Your task to perform on an android device: allow cookies in the chrome app Image 0: 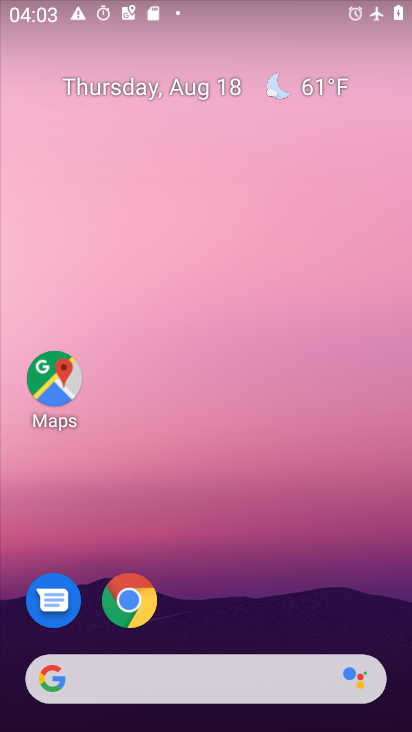
Step 0: press home button
Your task to perform on an android device: allow cookies in the chrome app Image 1: 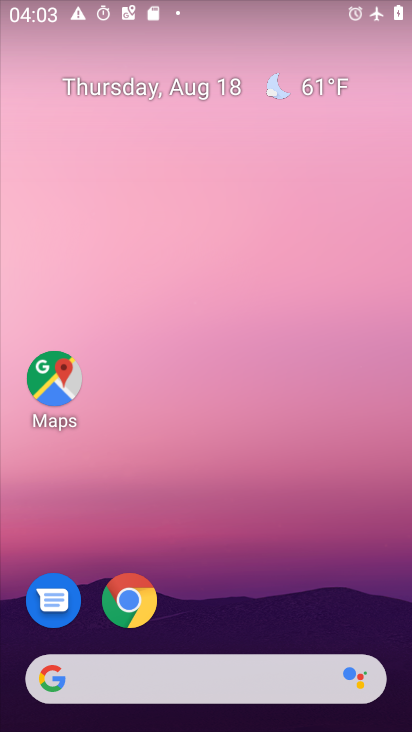
Step 1: click (127, 594)
Your task to perform on an android device: allow cookies in the chrome app Image 2: 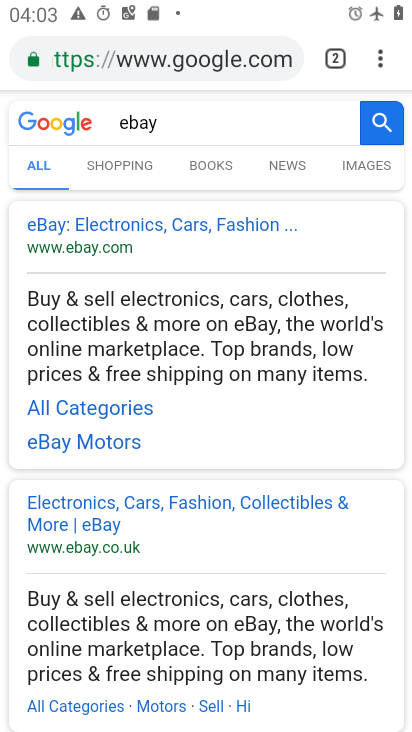
Step 2: drag from (380, 59) to (170, 662)
Your task to perform on an android device: allow cookies in the chrome app Image 3: 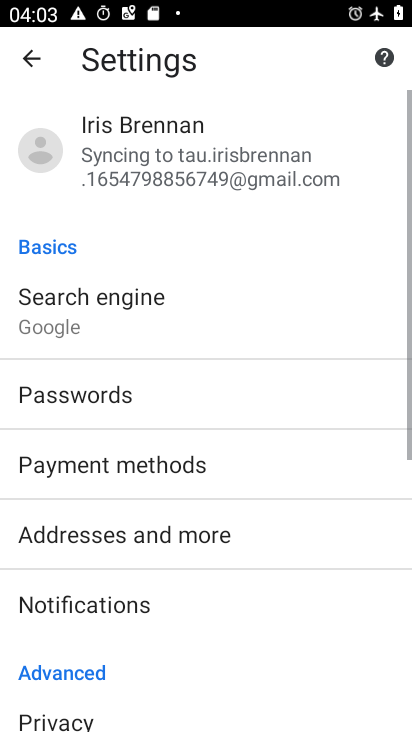
Step 3: drag from (236, 684) to (357, 66)
Your task to perform on an android device: allow cookies in the chrome app Image 4: 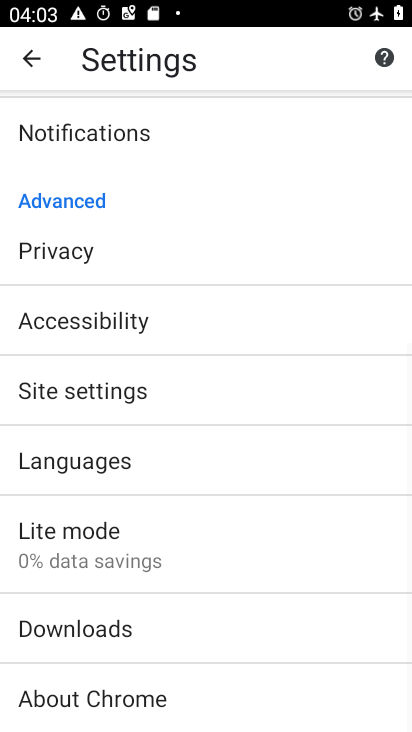
Step 4: click (80, 403)
Your task to perform on an android device: allow cookies in the chrome app Image 5: 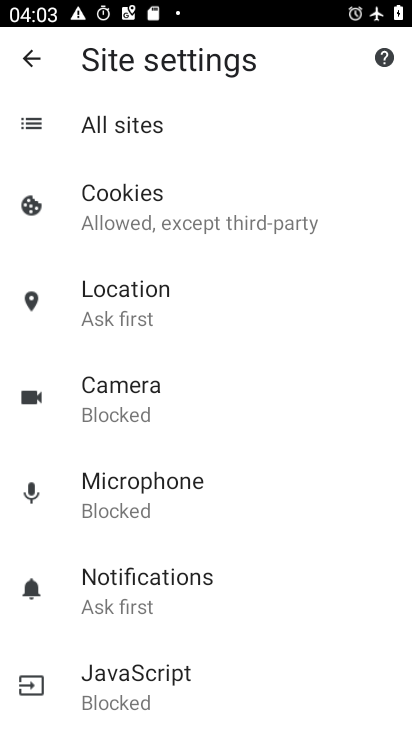
Step 5: click (142, 191)
Your task to perform on an android device: allow cookies in the chrome app Image 6: 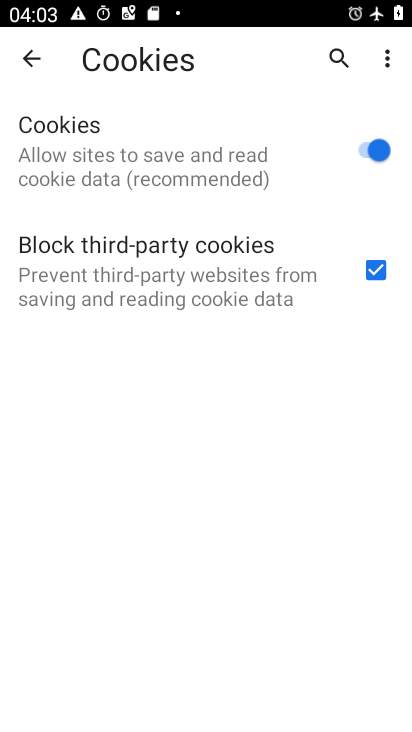
Step 6: task complete